Your task to perform on an android device: open app "Etsy: Buy & Sell Unique Items" (install if not already installed) and enter user name: "camp@inbox.com" and password: "unrelated" Image 0: 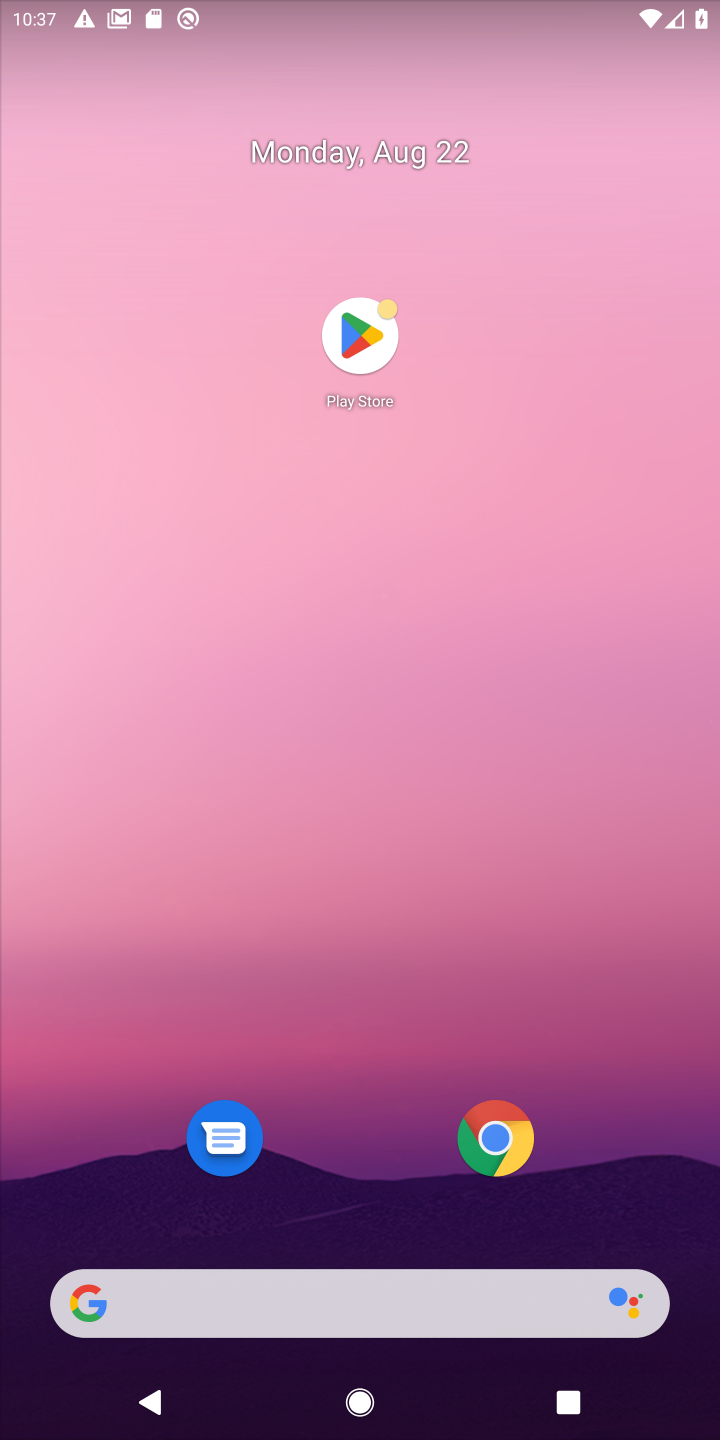
Step 0: click (349, 334)
Your task to perform on an android device: open app "Etsy: Buy & Sell Unique Items" (install if not already installed) and enter user name: "camp@inbox.com" and password: "unrelated" Image 1: 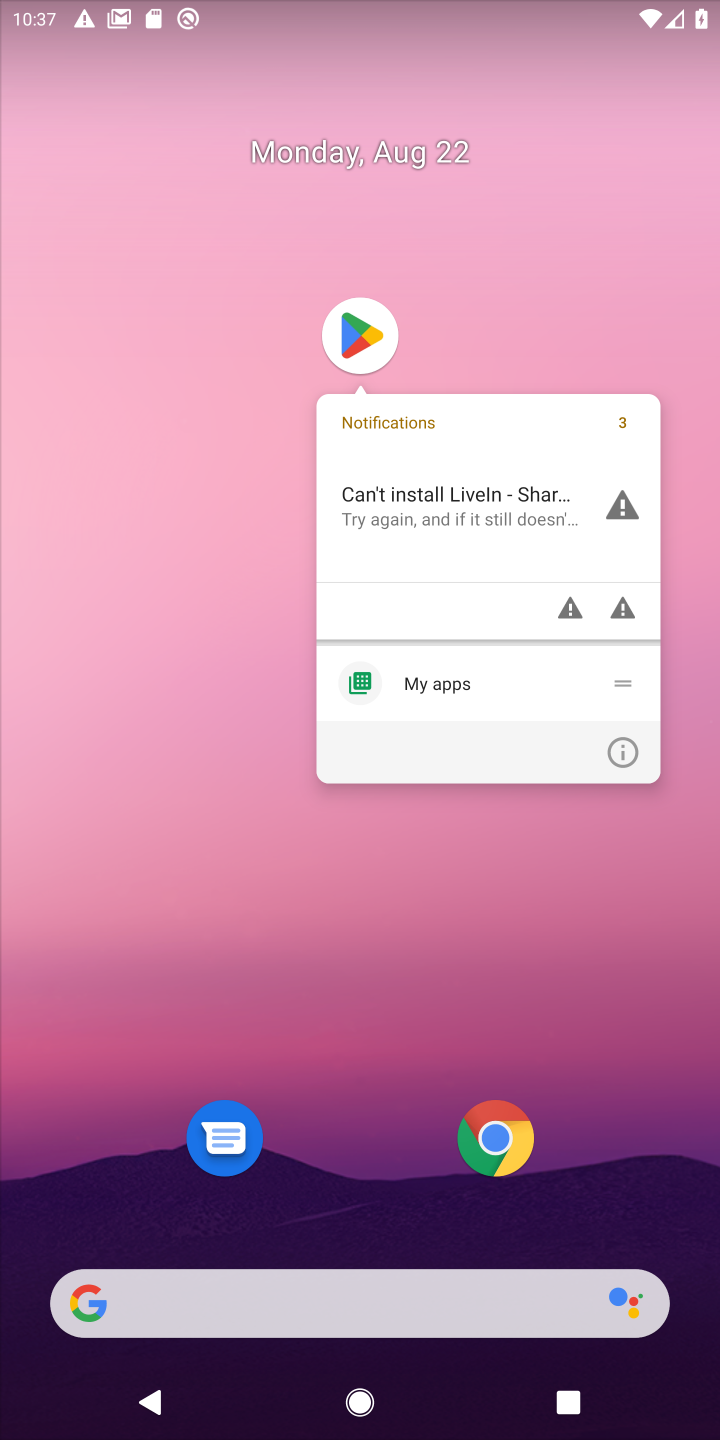
Step 1: click (359, 340)
Your task to perform on an android device: open app "Etsy: Buy & Sell Unique Items" (install if not already installed) and enter user name: "camp@inbox.com" and password: "unrelated" Image 2: 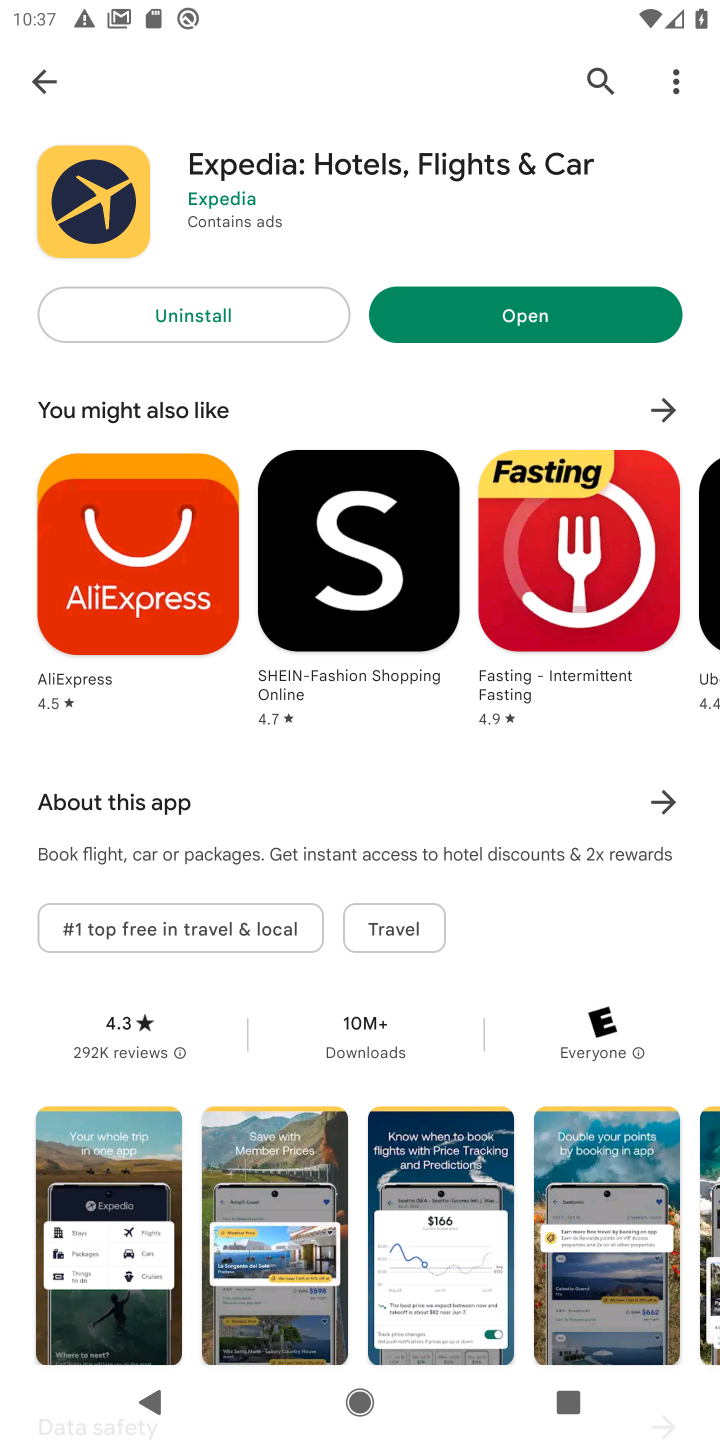
Step 2: click (594, 77)
Your task to perform on an android device: open app "Etsy: Buy & Sell Unique Items" (install if not already installed) and enter user name: "camp@inbox.com" and password: "unrelated" Image 3: 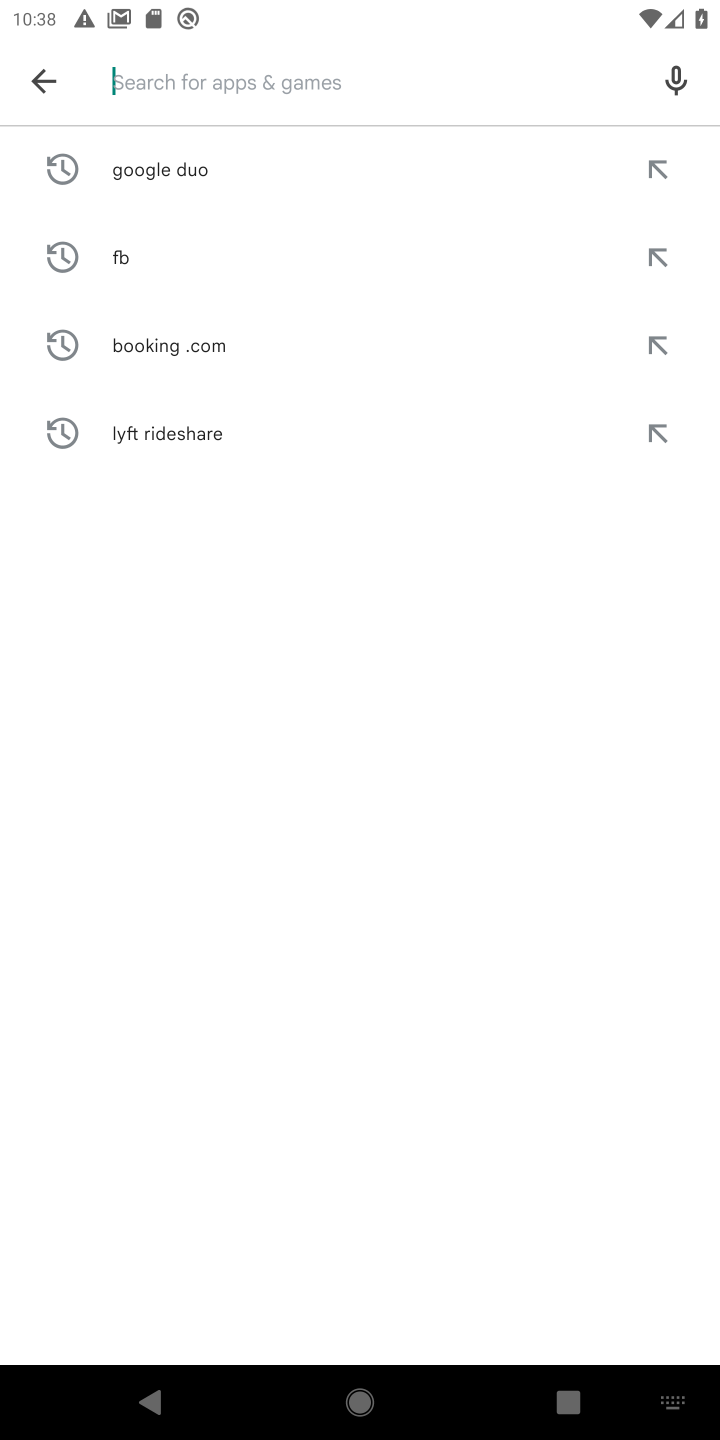
Step 3: type "etsy"
Your task to perform on an android device: open app "Etsy: Buy & Sell Unique Items" (install if not already installed) and enter user name: "camp@inbox.com" and password: "unrelated" Image 4: 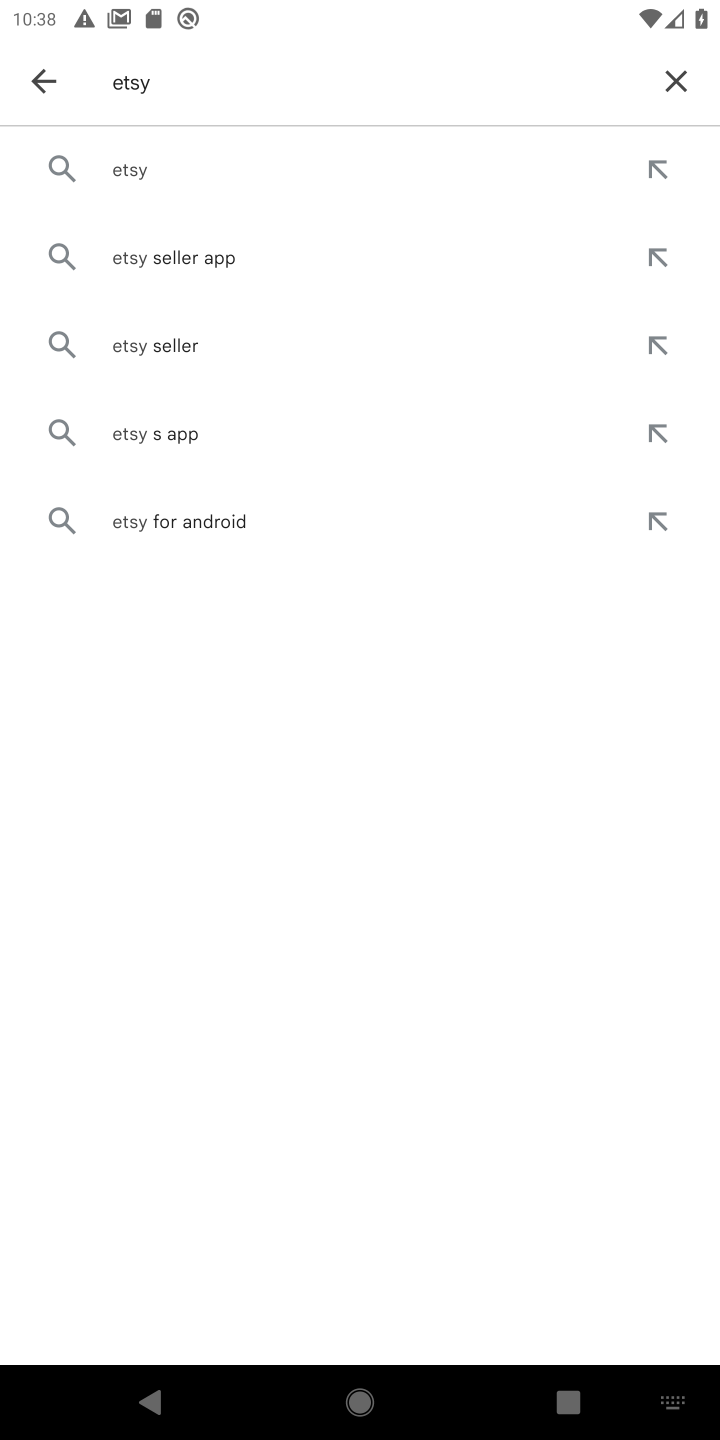
Step 4: click (108, 170)
Your task to perform on an android device: open app "Etsy: Buy & Sell Unique Items" (install if not already installed) and enter user name: "camp@inbox.com" and password: "unrelated" Image 5: 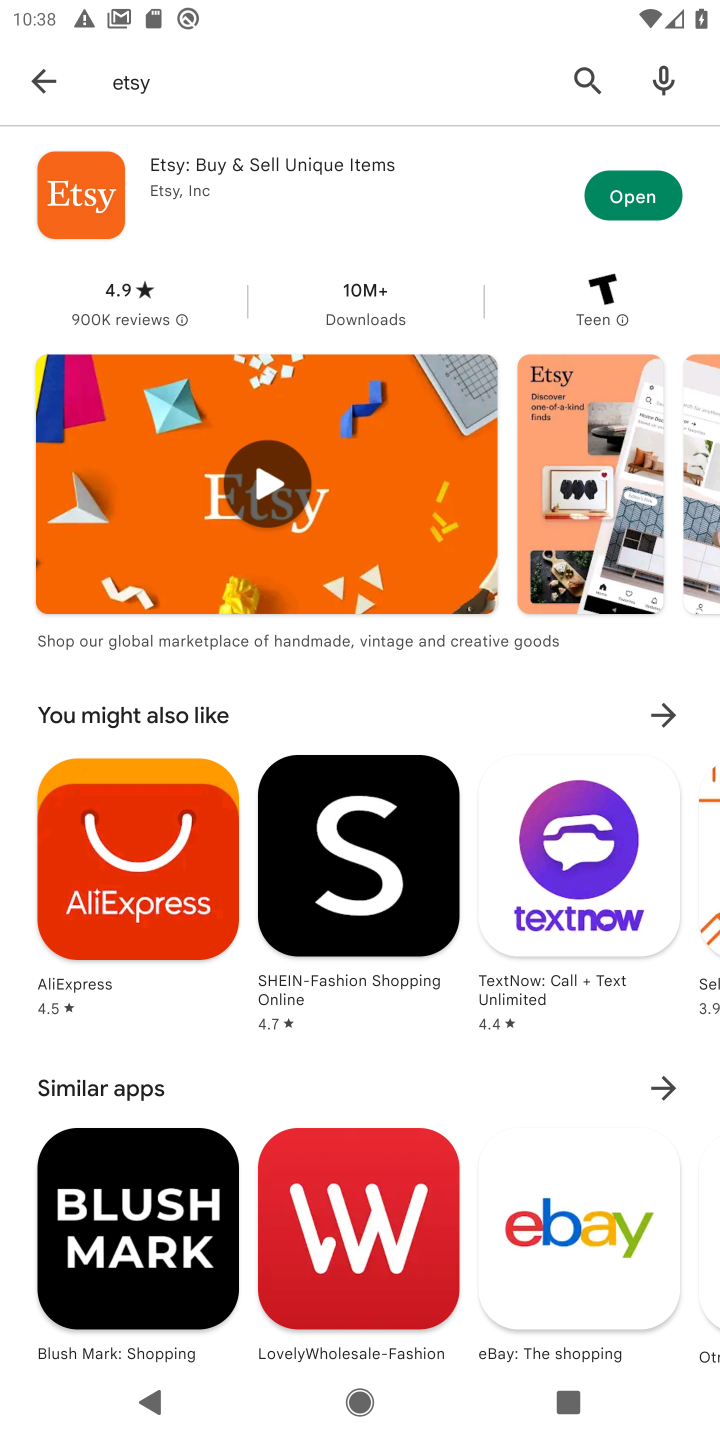
Step 5: click (656, 198)
Your task to perform on an android device: open app "Etsy: Buy & Sell Unique Items" (install if not already installed) and enter user name: "camp@inbox.com" and password: "unrelated" Image 6: 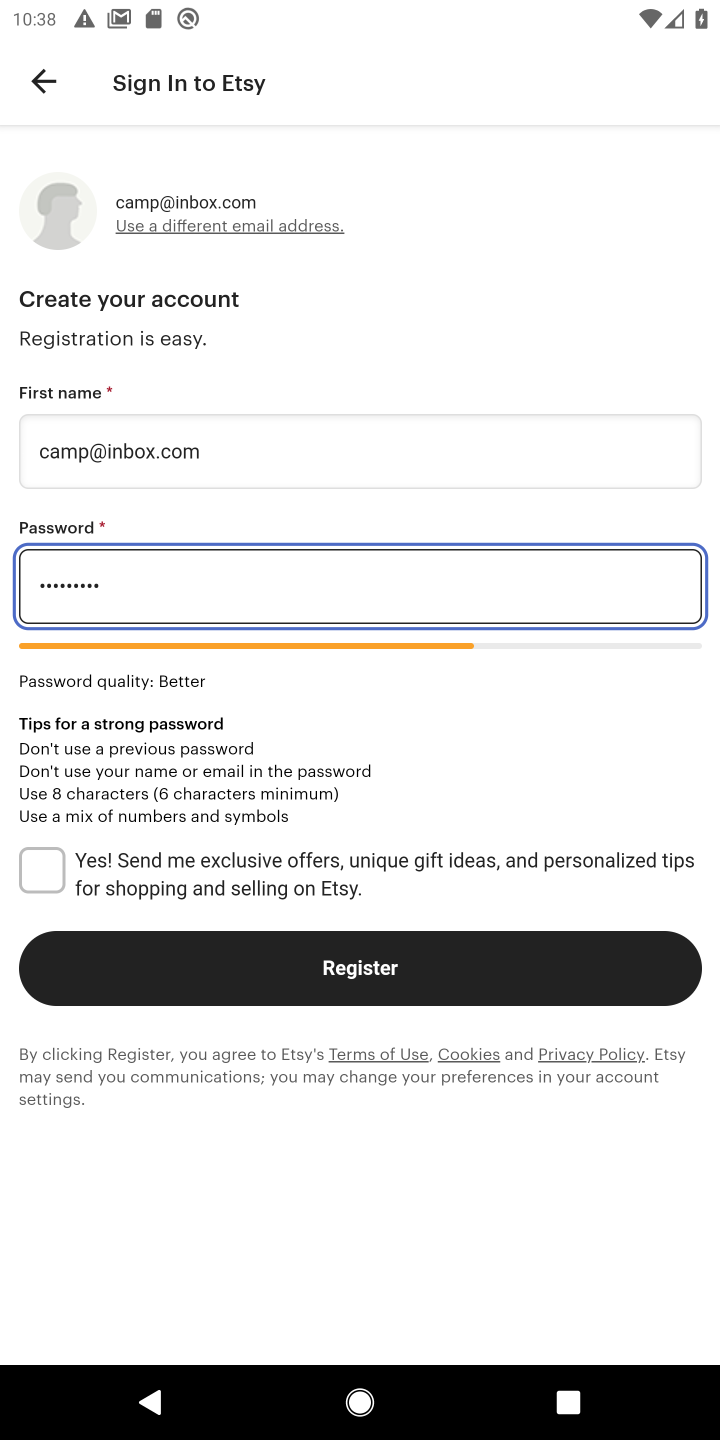
Step 6: task complete